Your task to perform on an android device: see sites visited before in the chrome app Image 0: 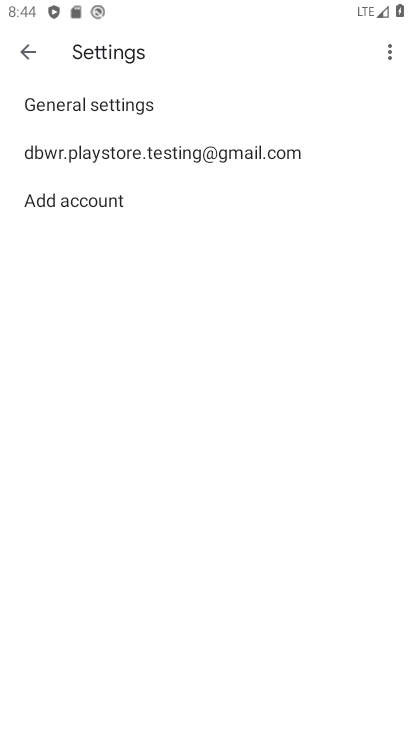
Step 0: press back button
Your task to perform on an android device: see sites visited before in the chrome app Image 1: 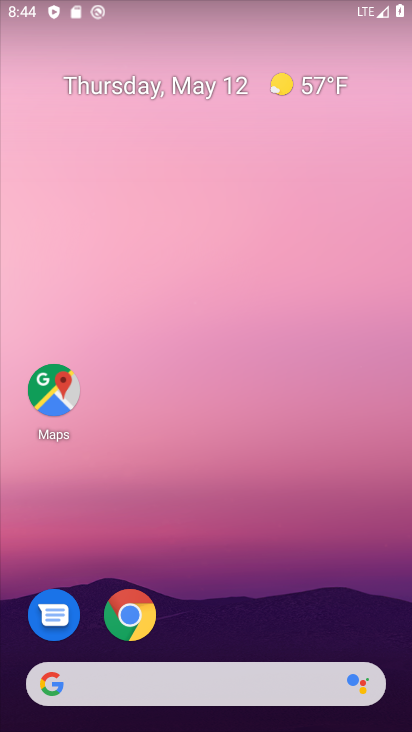
Step 1: drag from (231, 579) to (186, 0)
Your task to perform on an android device: see sites visited before in the chrome app Image 2: 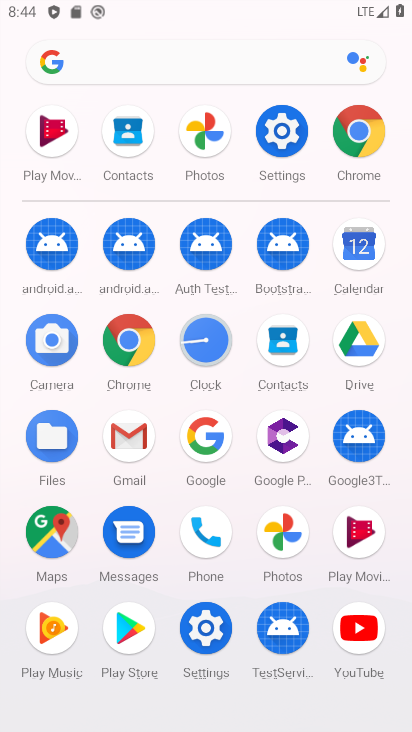
Step 2: drag from (10, 583) to (0, 242)
Your task to perform on an android device: see sites visited before in the chrome app Image 3: 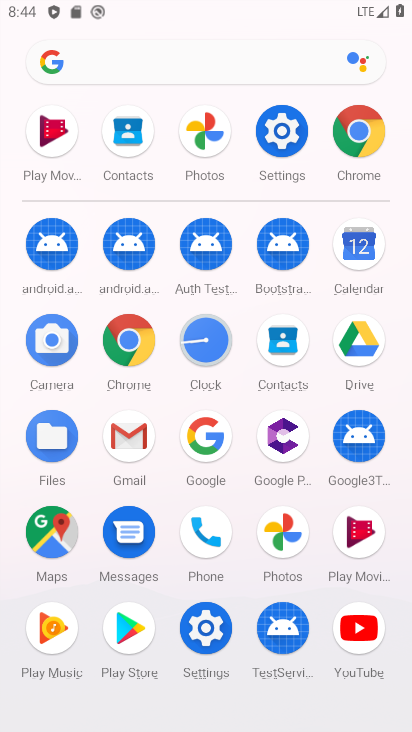
Step 3: click (125, 340)
Your task to perform on an android device: see sites visited before in the chrome app Image 4: 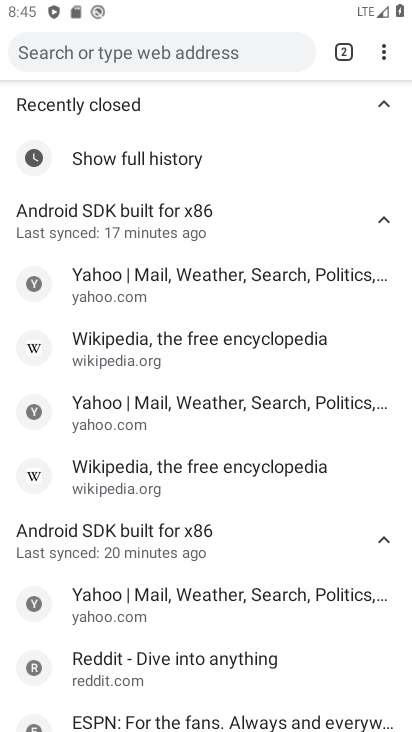
Step 4: task complete